Your task to perform on an android device: turn on the 24-hour format for clock Image 0: 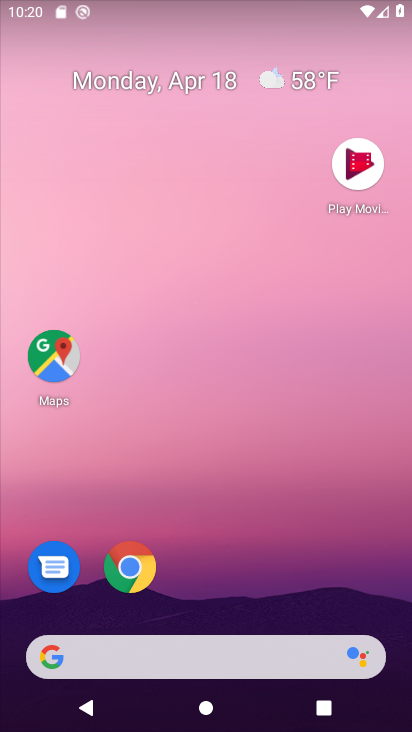
Step 0: drag from (219, 429) to (246, 69)
Your task to perform on an android device: turn on the 24-hour format for clock Image 1: 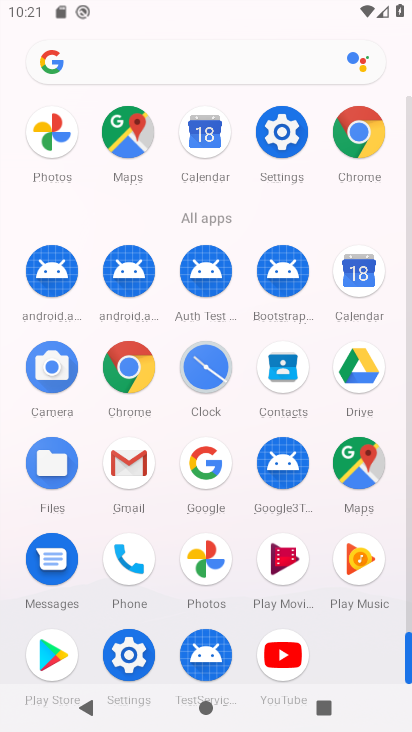
Step 1: click (205, 366)
Your task to perform on an android device: turn on the 24-hour format for clock Image 2: 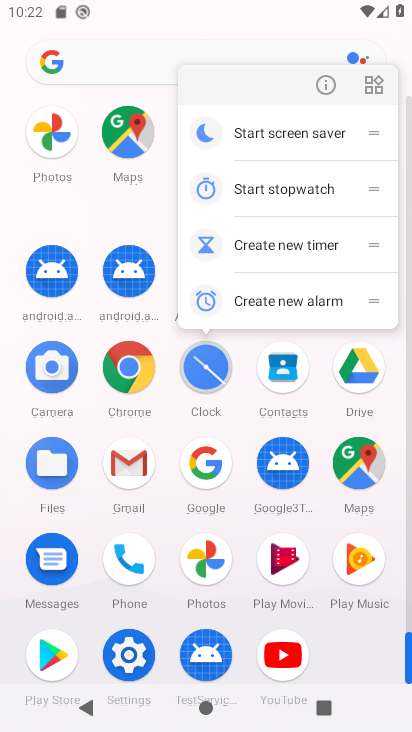
Step 2: click (329, 54)
Your task to perform on an android device: turn on the 24-hour format for clock Image 3: 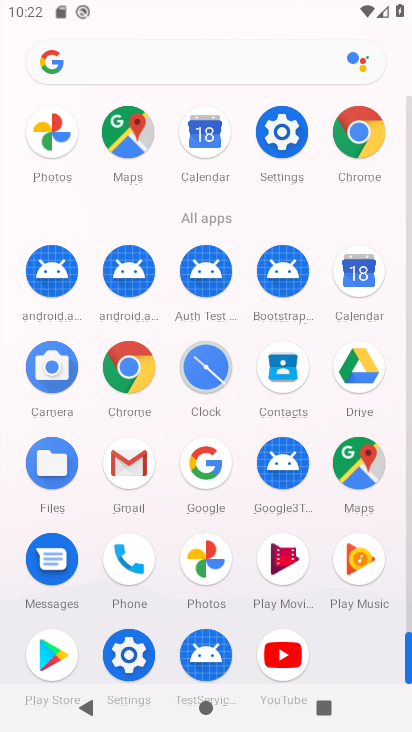
Step 3: click (197, 368)
Your task to perform on an android device: turn on the 24-hour format for clock Image 4: 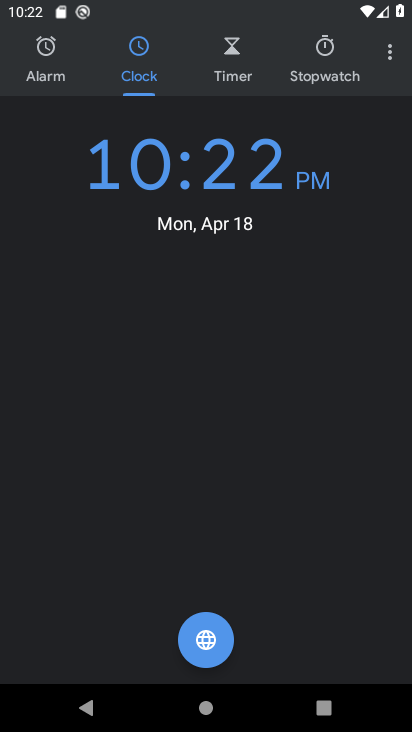
Step 4: click (398, 53)
Your task to perform on an android device: turn on the 24-hour format for clock Image 5: 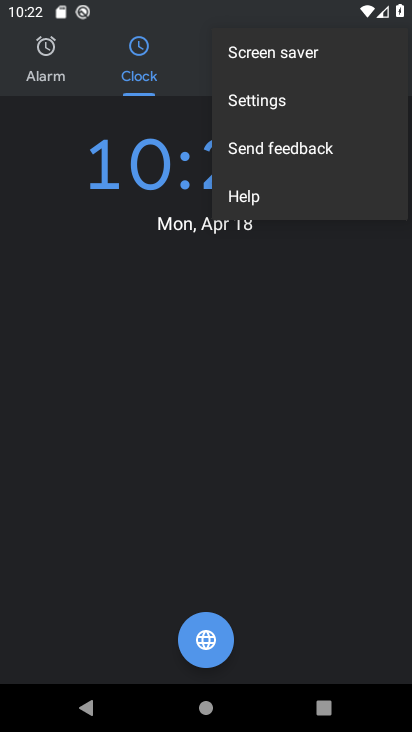
Step 5: click (263, 94)
Your task to perform on an android device: turn on the 24-hour format for clock Image 6: 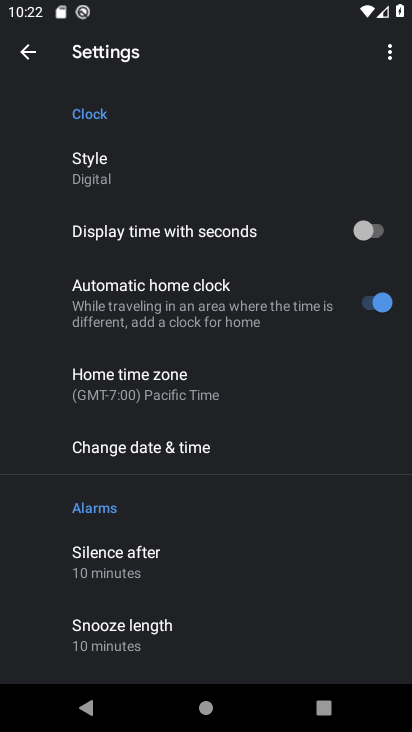
Step 6: click (180, 452)
Your task to perform on an android device: turn on the 24-hour format for clock Image 7: 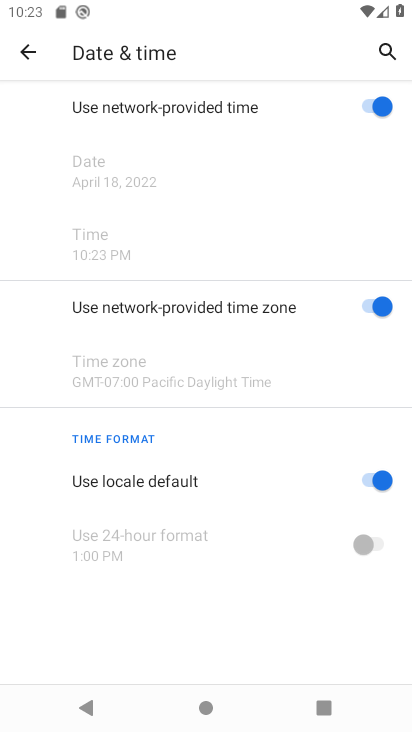
Step 7: drag from (215, 219) to (244, 631)
Your task to perform on an android device: turn on the 24-hour format for clock Image 8: 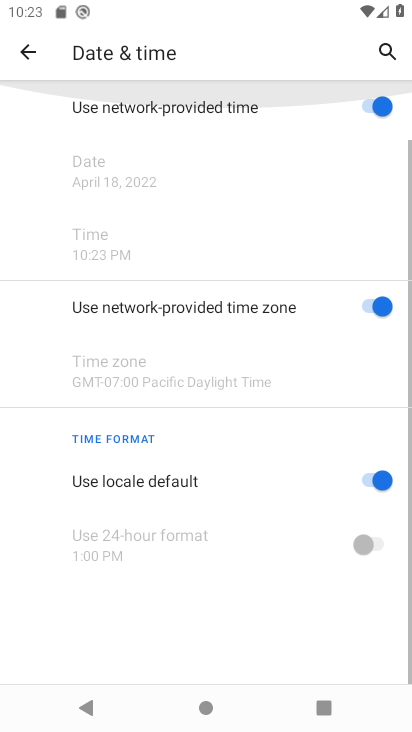
Step 8: drag from (182, 429) to (256, 86)
Your task to perform on an android device: turn on the 24-hour format for clock Image 9: 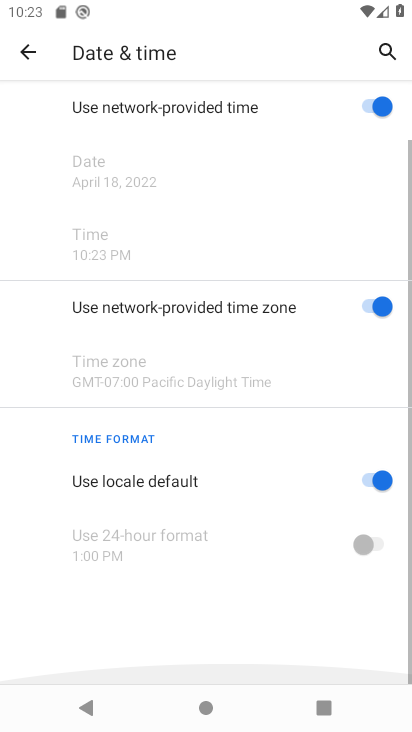
Step 9: drag from (222, 350) to (270, 108)
Your task to perform on an android device: turn on the 24-hour format for clock Image 10: 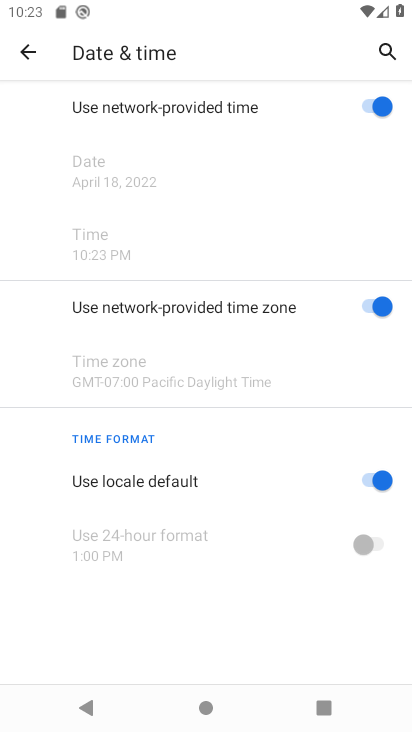
Step 10: drag from (222, 359) to (256, 148)
Your task to perform on an android device: turn on the 24-hour format for clock Image 11: 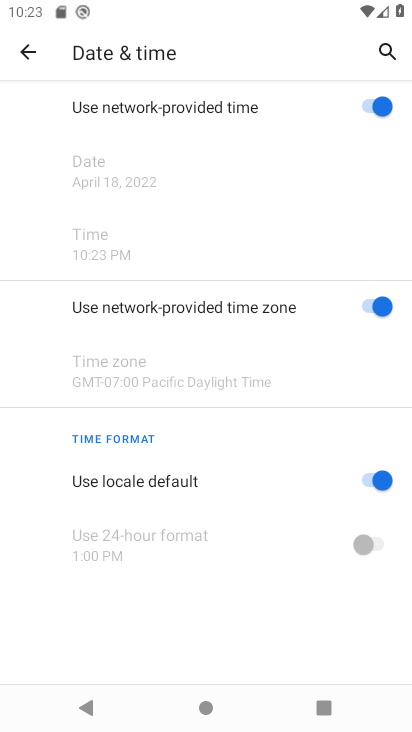
Step 11: click (386, 490)
Your task to perform on an android device: turn on the 24-hour format for clock Image 12: 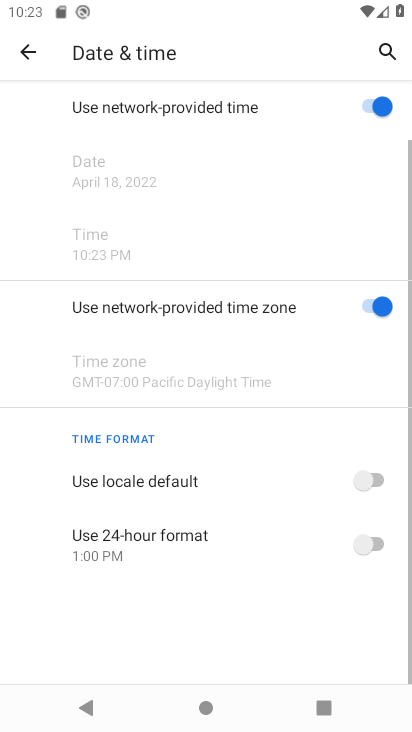
Step 12: click (371, 552)
Your task to perform on an android device: turn on the 24-hour format for clock Image 13: 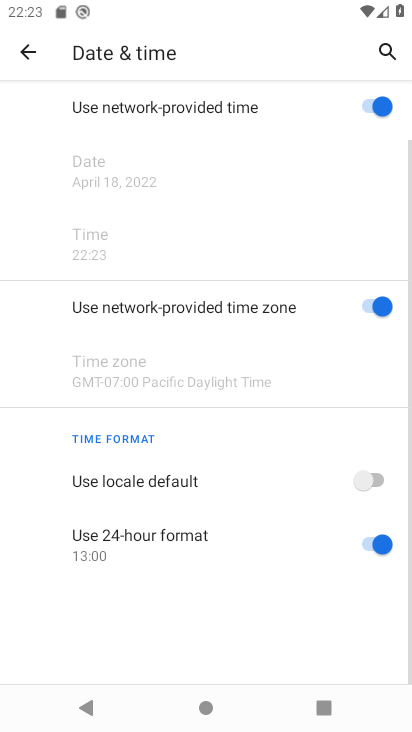
Step 13: task complete